Your task to perform on an android device: stop showing notifications on the lock screen Image 0: 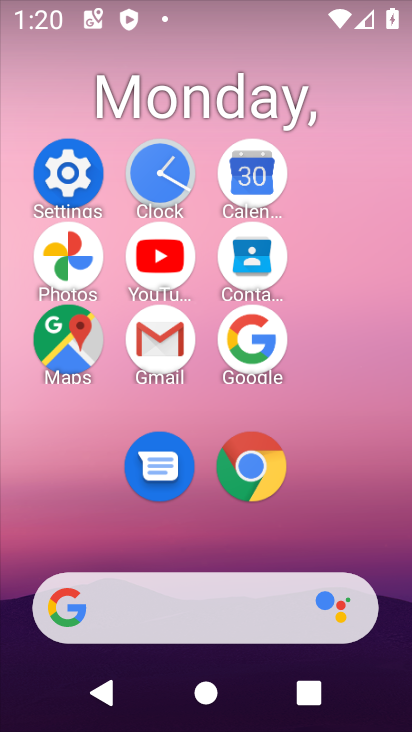
Step 0: click (65, 170)
Your task to perform on an android device: stop showing notifications on the lock screen Image 1: 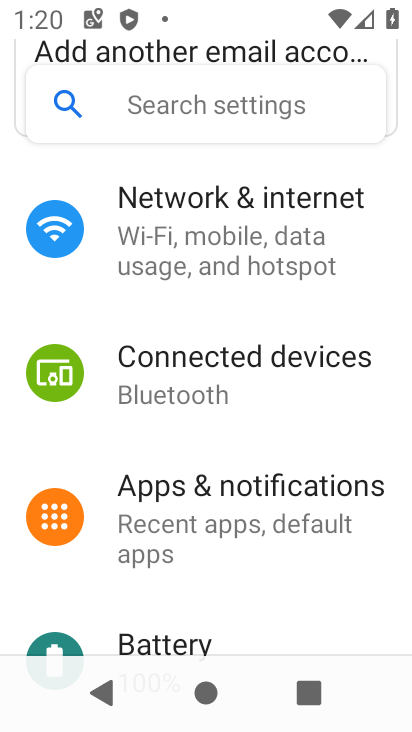
Step 1: click (267, 496)
Your task to perform on an android device: stop showing notifications on the lock screen Image 2: 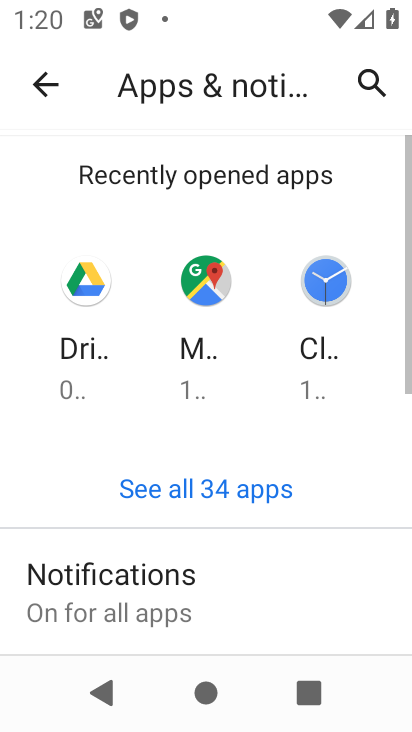
Step 2: click (176, 599)
Your task to perform on an android device: stop showing notifications on the lock screen Image 3: 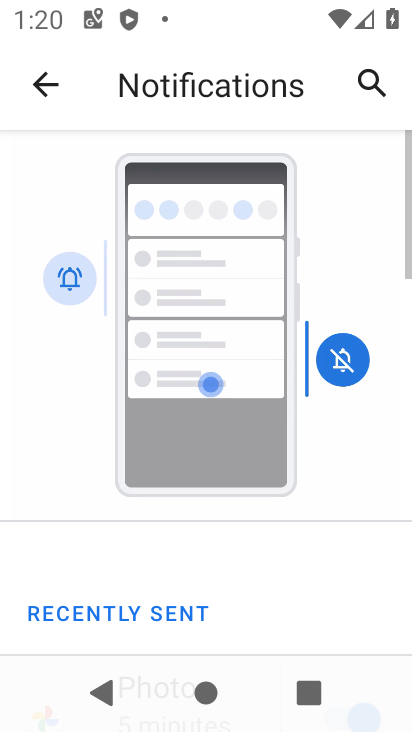
Step 3: drag from (174, 577) to (178, 105)
Your task to perform on an android device: stop showing notifications on the lock screen Image 4: 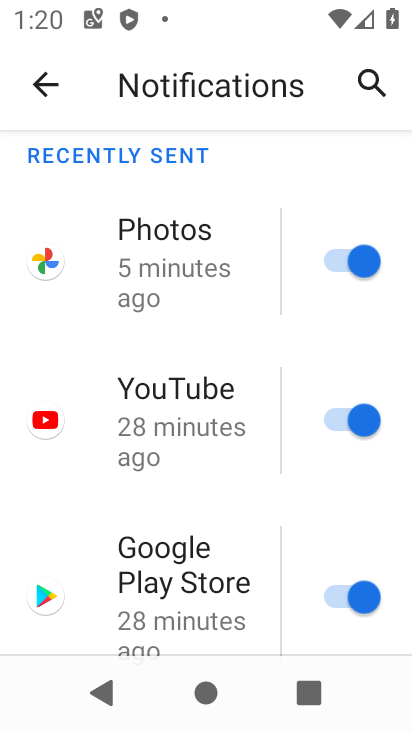
Step 4: drag from (194, 539) to (168, 125)
Your task to perform on an android device: stop showing notifications on the lock screen Image 5: 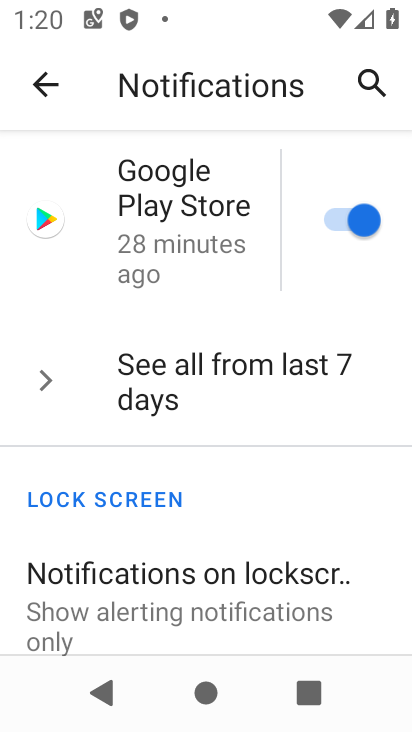
Step 5: drag from (247, 625) to (237, 168)
Your task to perform on an android device: stop showing notifications on the lock screen Image 6: 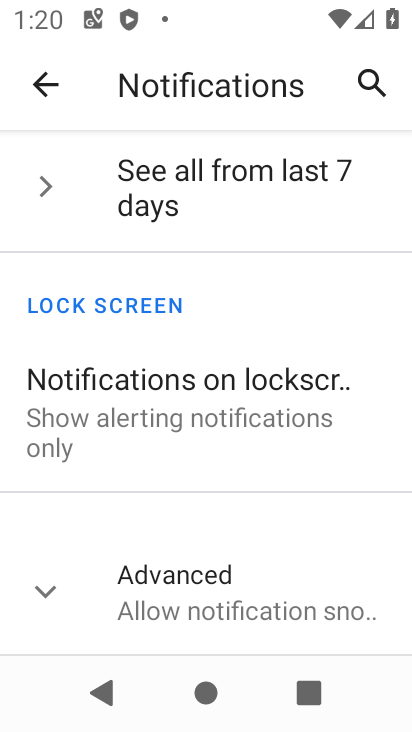
Step 6: click (229, 349)
Your task to perform on an android device: stop showing notifications on the lock screen Image 7: 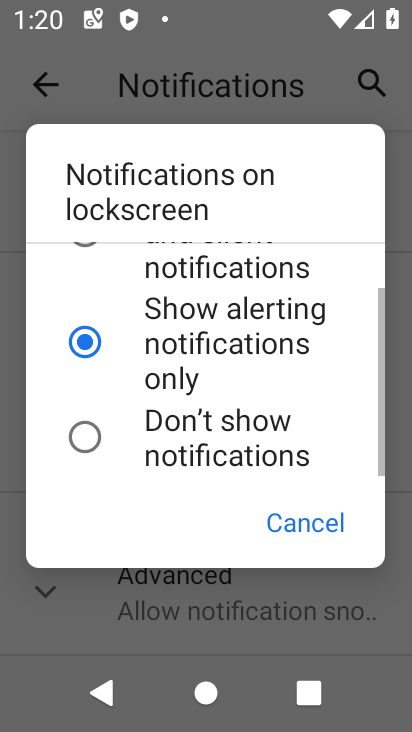
Step 7: click (163, 438)
Your task to perform on an android device: stop showing notifications on the lock screen Image 8: 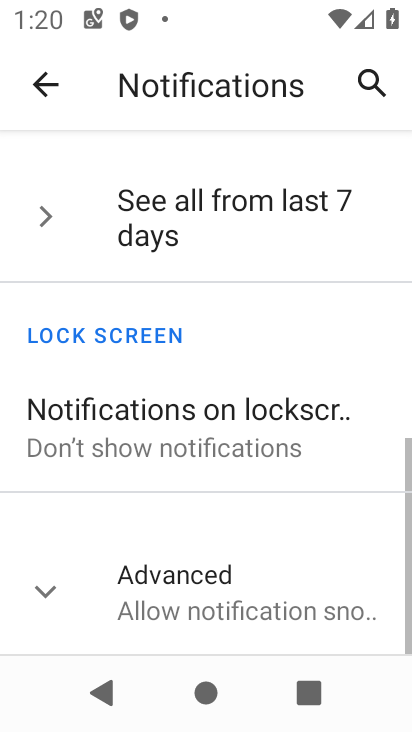
Step 8: task complete